Your task to perform on an android device: Go to Google maps Image 0: 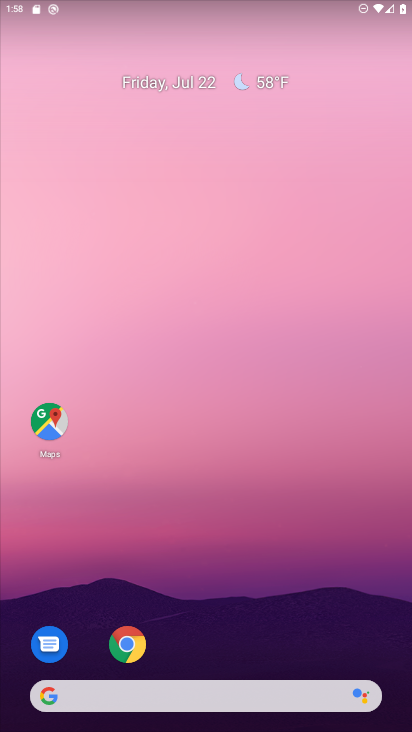
Step 0: click (71, 436)
Your task to perform on an android device: Go to Google maps Image 1: 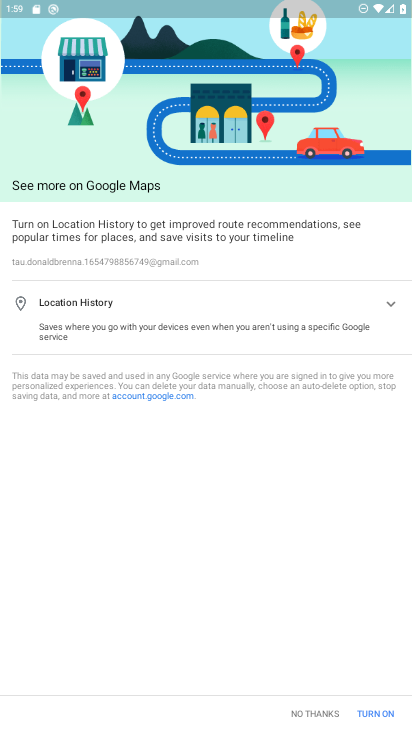
Step 1: click (380, 710)
Your task to perform on an android device: Go to Google maps Image 2: 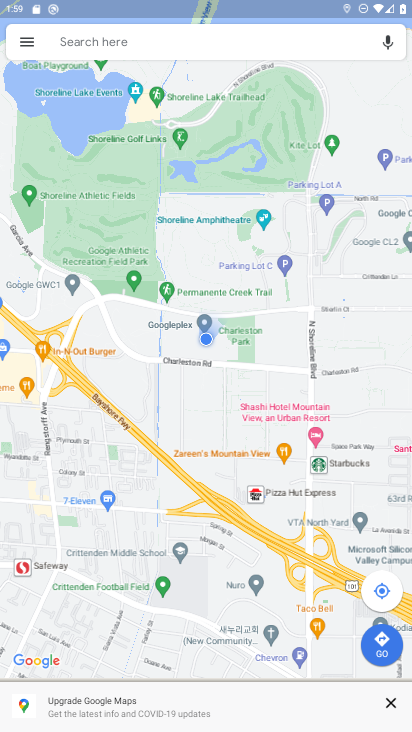
Step 2: task complete